Your task to perform on an android device: Show me popular videos on Youtube Image 0: 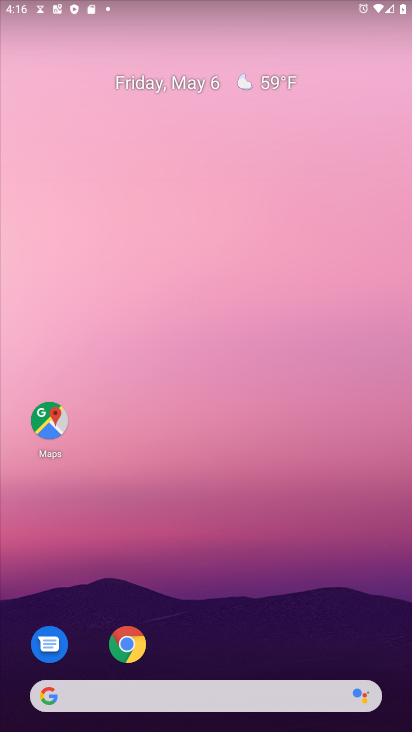
Step 0: drag from (276, 595) to (225, 49)
Your task to perform on an android device: Show me popular videos on Youtube Image 1: 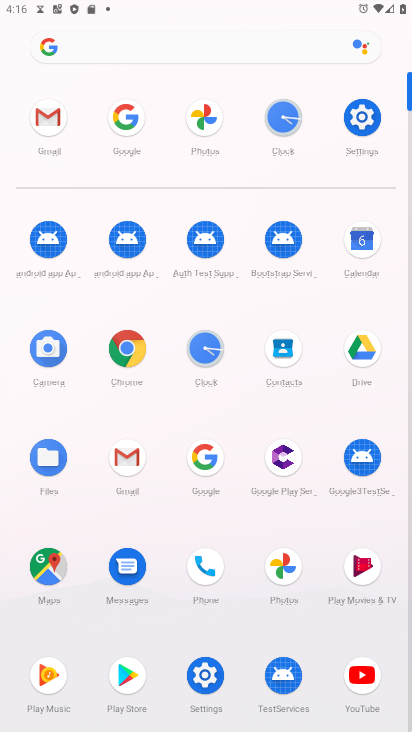
Step 1: click (366, 672)
Your task to perform on an android device: Show me popular videos on Youtube Image 2: 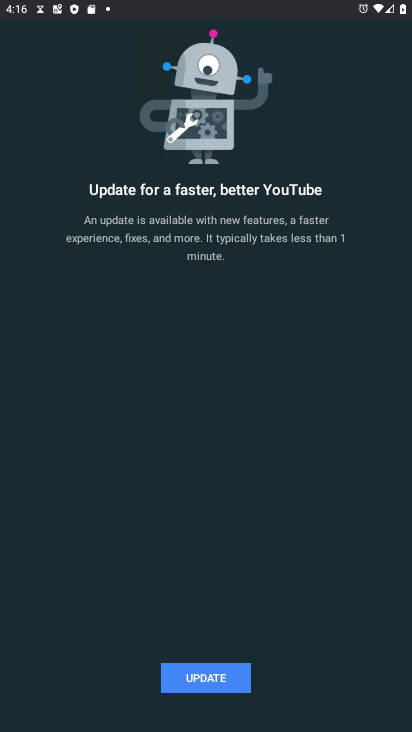
Step 2: click (207, 672)
Your task to perform on an android device: Show me popular videos on Youtube Image 3: 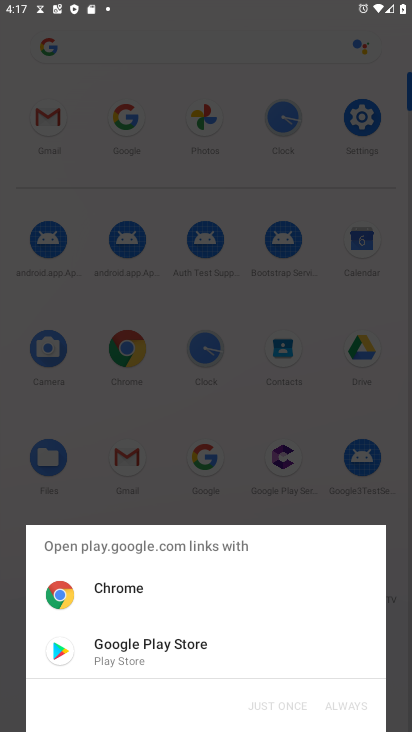
Step 3: click (149, 644)
Your task to perform on an android device: Show me popular videos on Youtube Image 4: 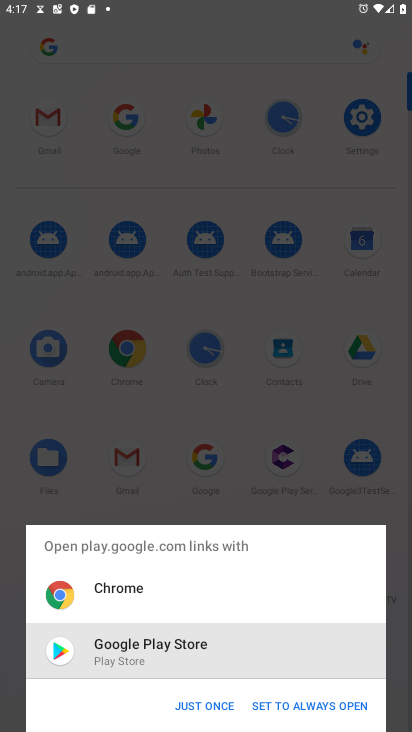
Step 4: click (207, 711)
Your task to perform on an android device: Show me popular videos on Youtube Image 5: 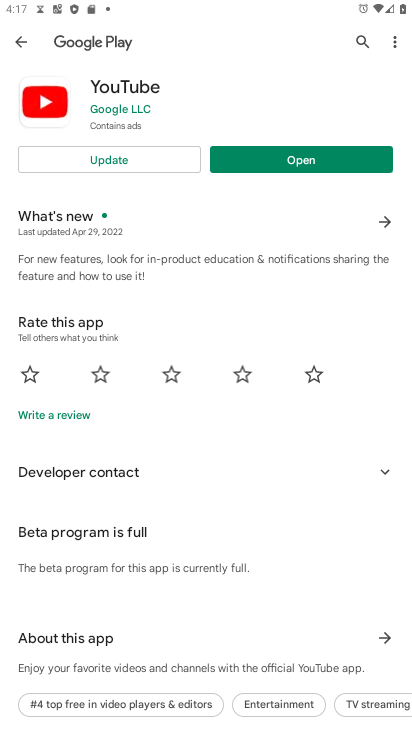
Step 5: click (159, 159)
Your task to perform on an android device: Show me popular videos on Youtube Image 6: 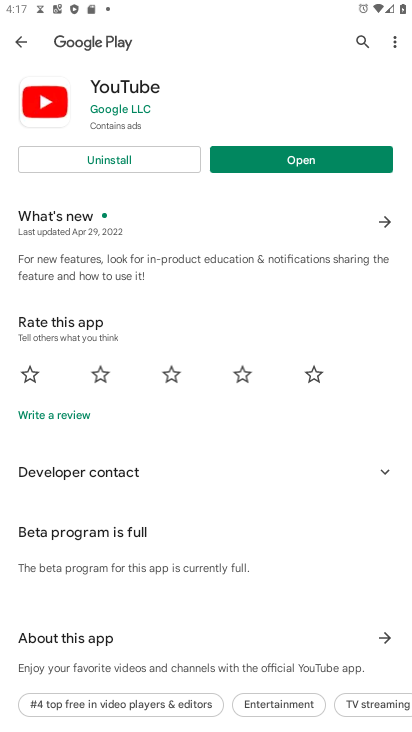
Step 6: click (267, 168)
Your task to perform on an android device: Show me popular videos on Youtube Image 7: 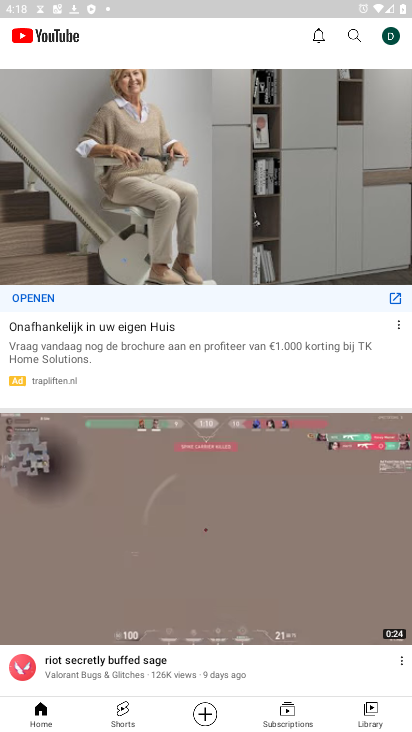
Step 7: click (348, 38)
Your task to perform on an android device: Show me popular videos on Youtube Image 8: 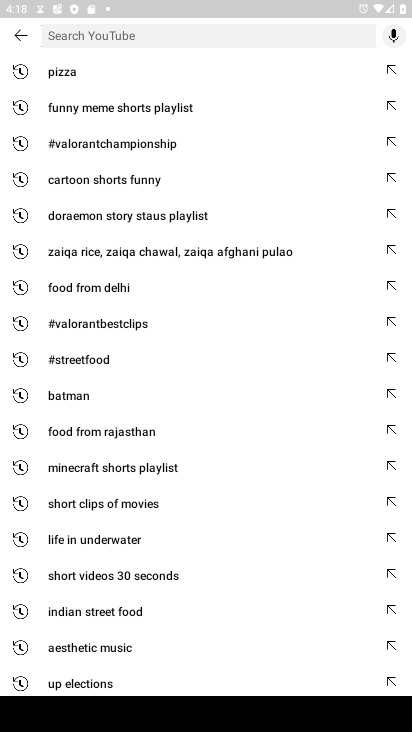
Step 8: type "popular videos"
Your task to perform on an android device: Show me popular videos on Youtube Image 9: 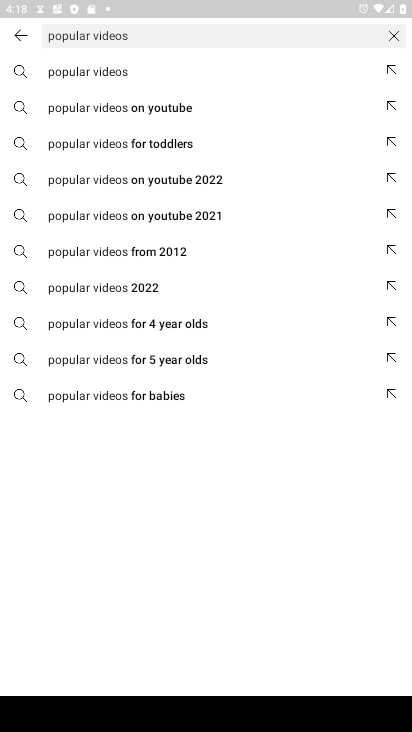
Step 9: click (102, 70)
Your task to perform on an android device: Show me popular videos on Youtube Image 10: 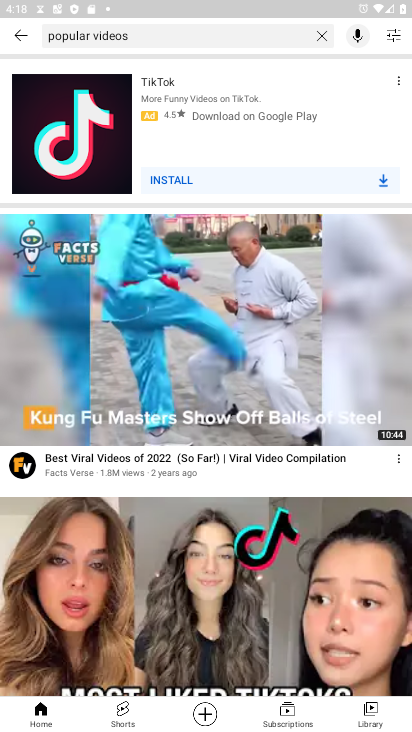
Step 10: task complete